Your task to perform on an android device: Go to Google maps Image 0: 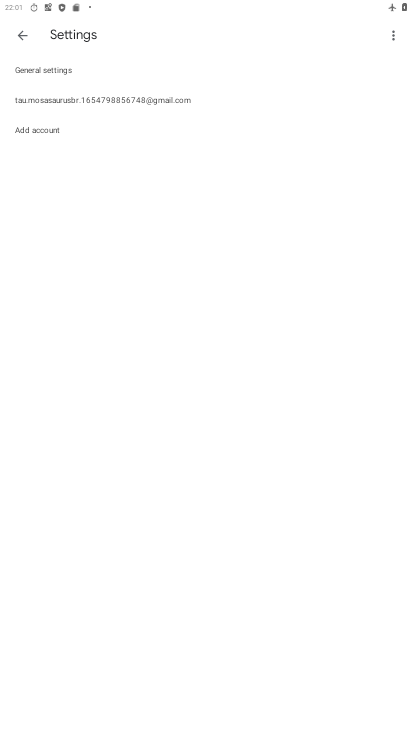
Step 0: press home button
Your task to perform on an android device: Go to Google maps Image 1: 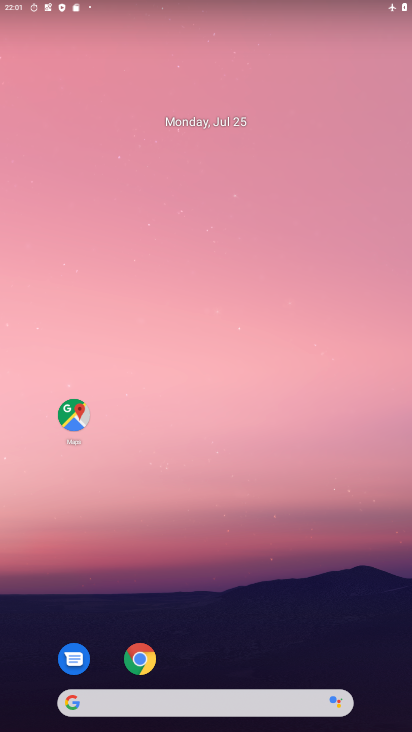
Step 1: click (86, 421)
Your task to perform on an android device: Go to Google maps Image 2: 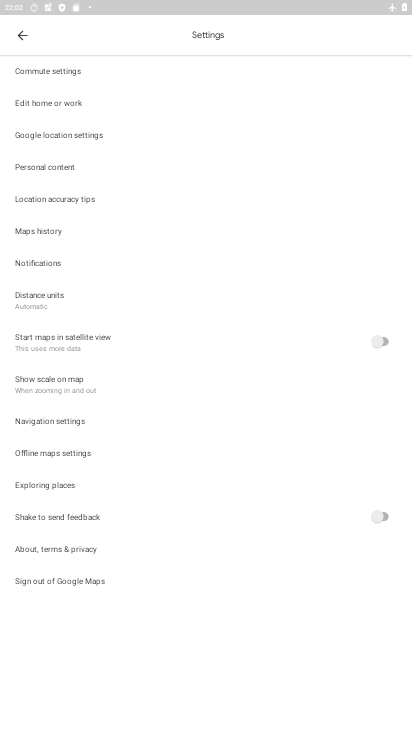
Step 2: click (23, 38)
Your task to perform on an android device: Go to Google maps Image 3: 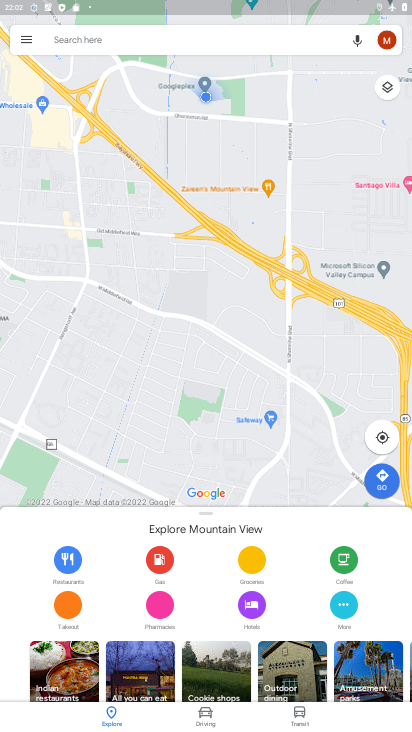
Step 3: task complete